Your task to perform on an android device: Open Android settings Image 0: 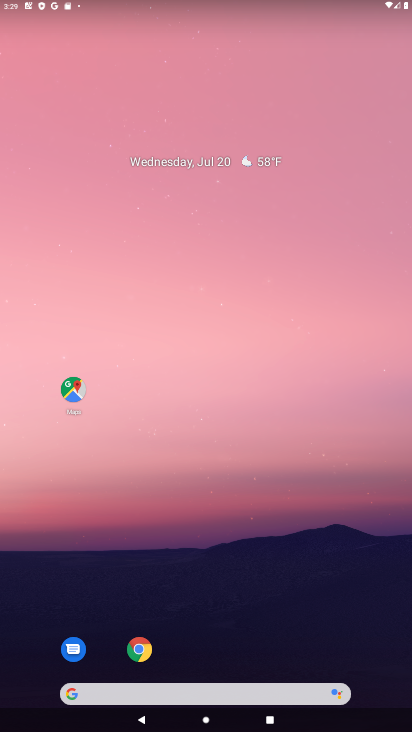
Step 0: drag from (245, 715) to (227, 101)
Your task to perform on an android device: Open Android settings Image 1: 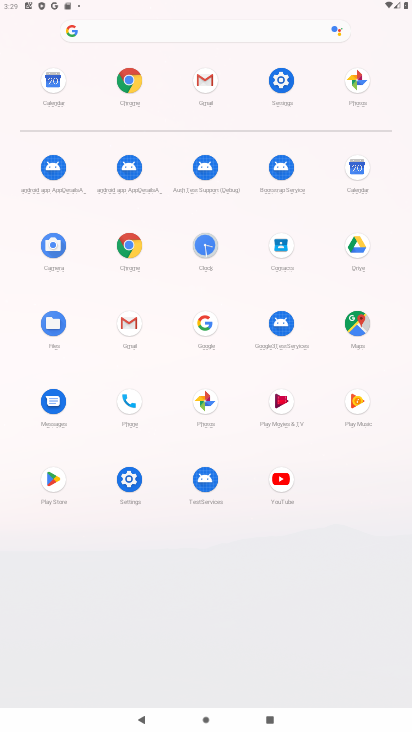
Step 1: click (288, 82)
Your task to perform on an android device: Open Android settings Image 2: 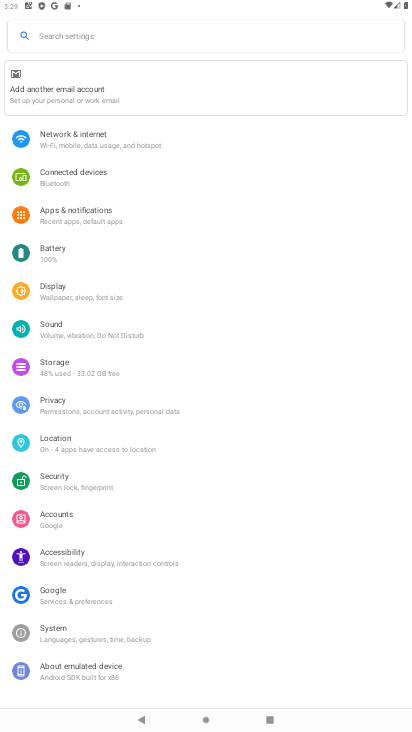
Step 2: task complete